Your task to perform on an android device: Go to battery settings Image 0: 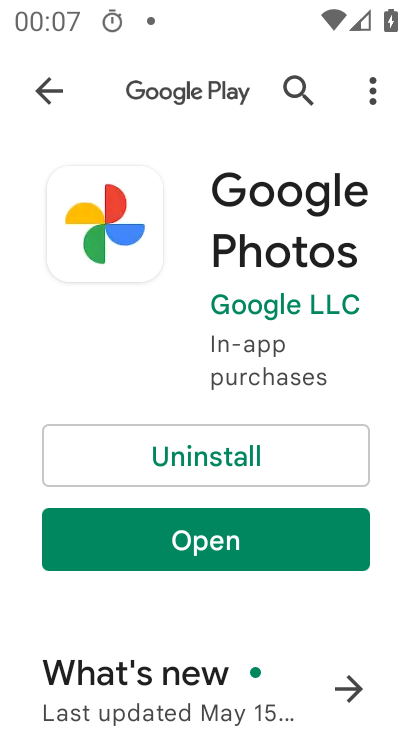
Step 0: press home button
Your task to perform on an android device: Go to battery settings Image 1: 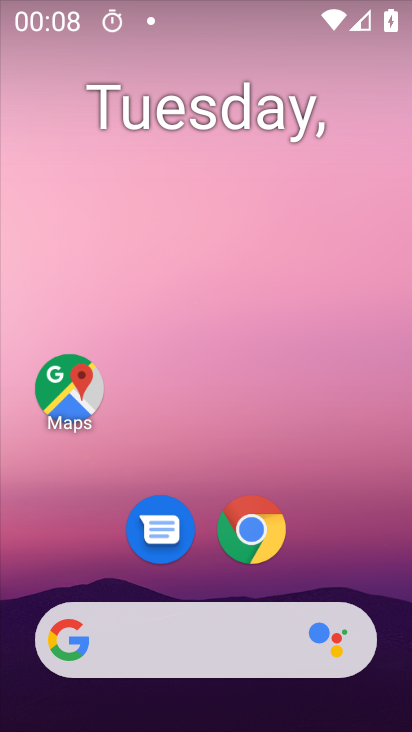
Step 1: drag from (359, 540) to (370, 155)
Your task to perform on an android device: Go to battery settings Image 2: 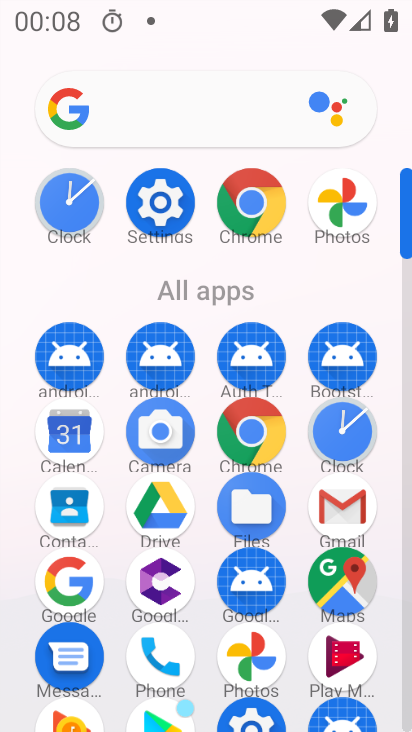
Step 2: click (144, 232)
Your task to perform on an android device: Go to battery settings Image 3: 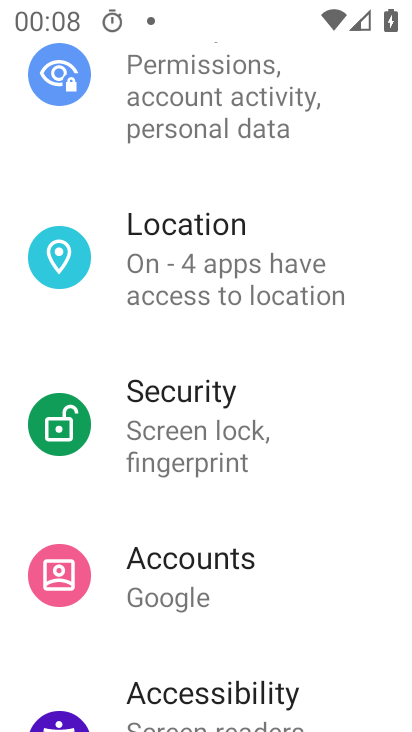
Step 3: drag from (347, 196) to (329, 715)
Your task to perform on an android device: Go to battery settings Image 4: 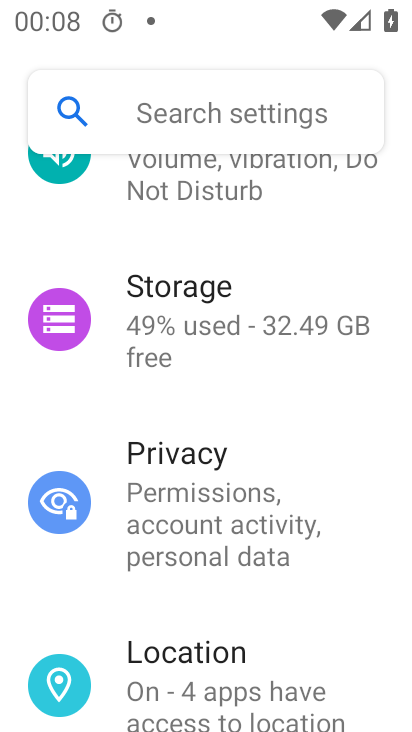
Step 4: drag from (345, 389) to (341, 580)
Your task to perform on an android device: Go to battery settings Image 5: 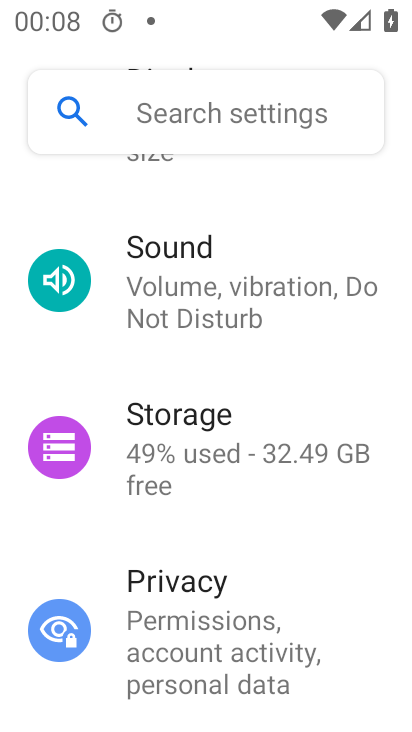
Step 5: drag from (217, 284) to (245, 720)
Your task to perform on an android device: Go to battery settings Image 6: 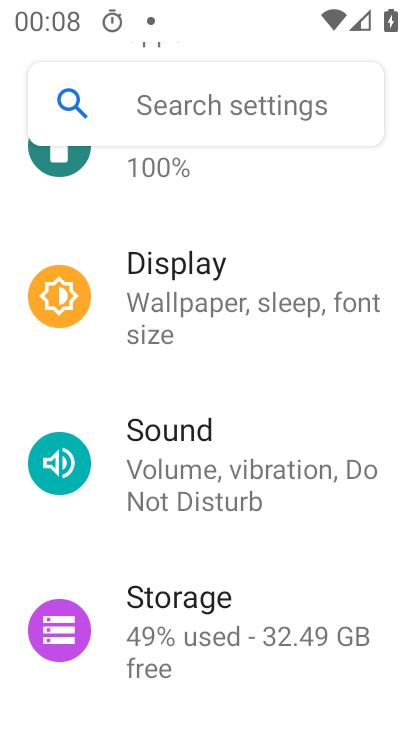
Step 6: drag from (275, 379) to (247, 717)
Your task to perform on an android device: Go to battery settings Image 7: 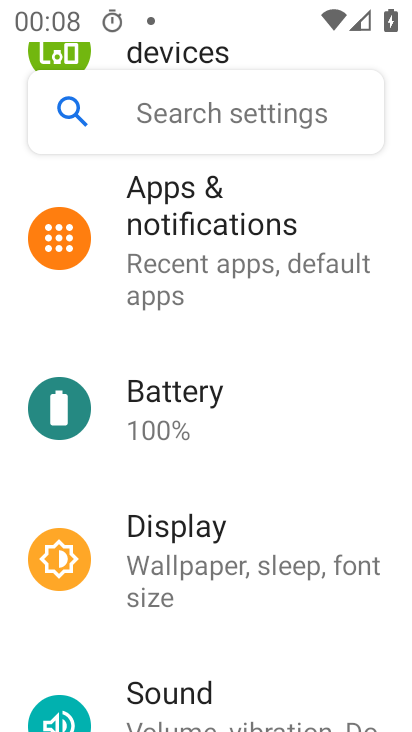
Step 7: click (153, 444)
Your task to perform on an android device: Go to battery settings Image 8: 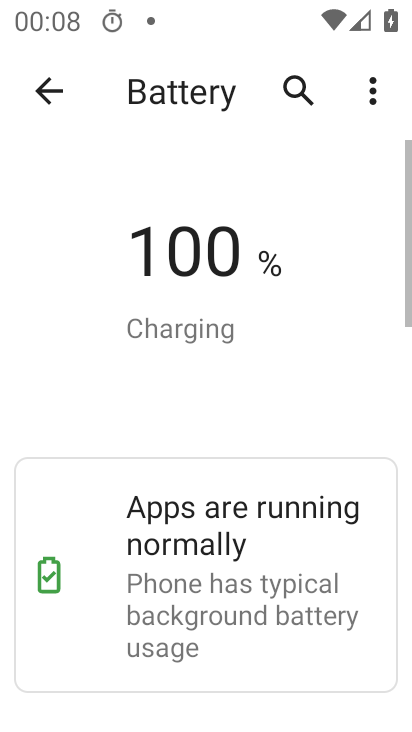
Step 8: task complete